Your task to perform on an android device: Open eBay Image 0: 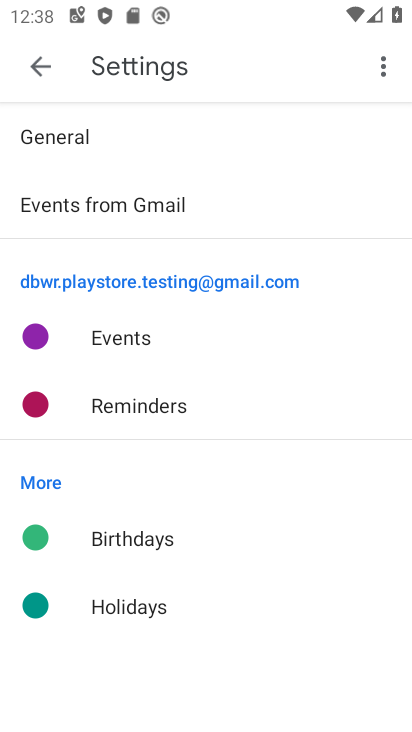
Step 0: press home button
Your task to perform on an android device: Open eBay Image 1: 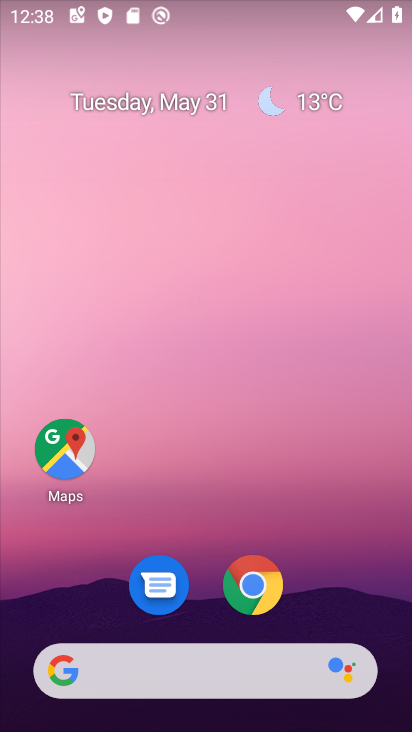
Step 1: click (262, 685)
Your task to perform on an android device: Open eBay Image 2: 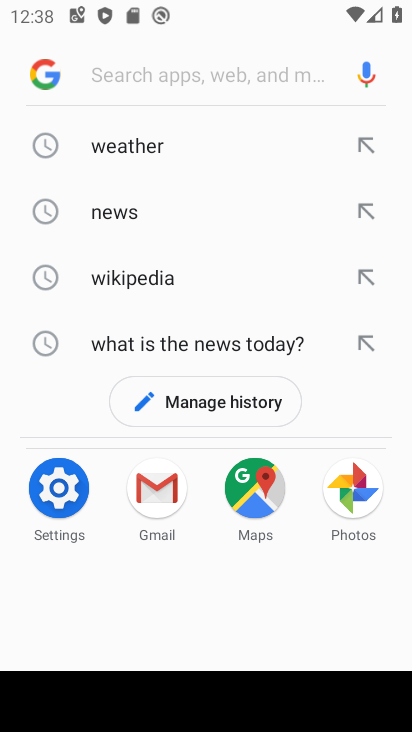
Step 2: type "ebay"
Your task to perform on an android device: Open eBay Image 3: 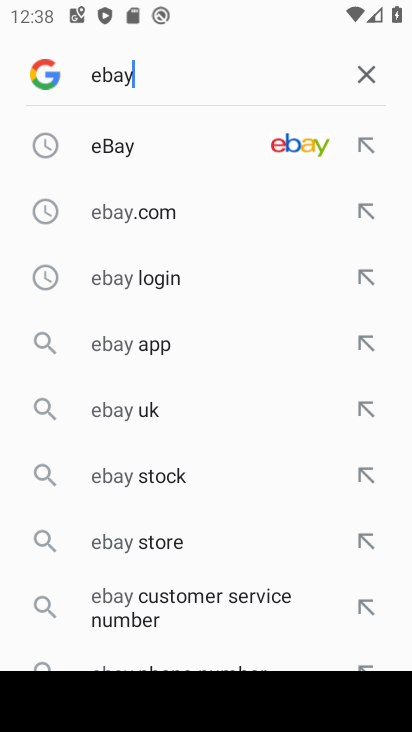
Step 3: click (117, 138)
Your task to perform on an android device: Open eBay Image 4: 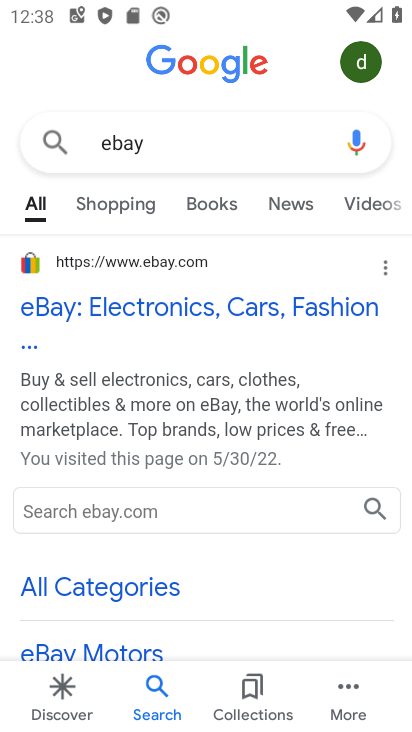
Step 4: click (55, 309)
Your task to perform on an android device: Open eBay Image 5: 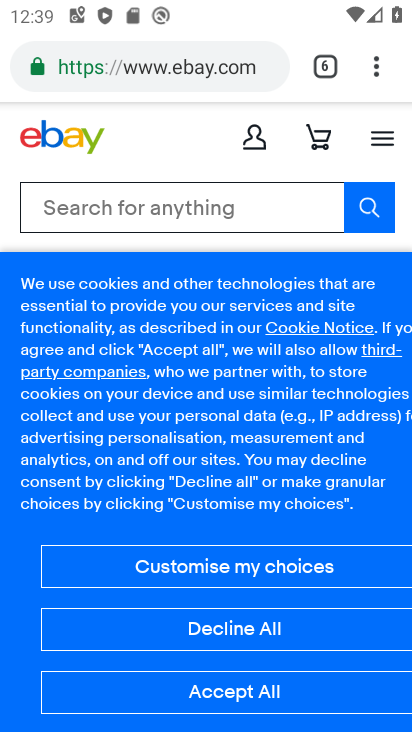
Step 5: task complete